Your task to perform on an android device: Turn off the flashlight Image 0: 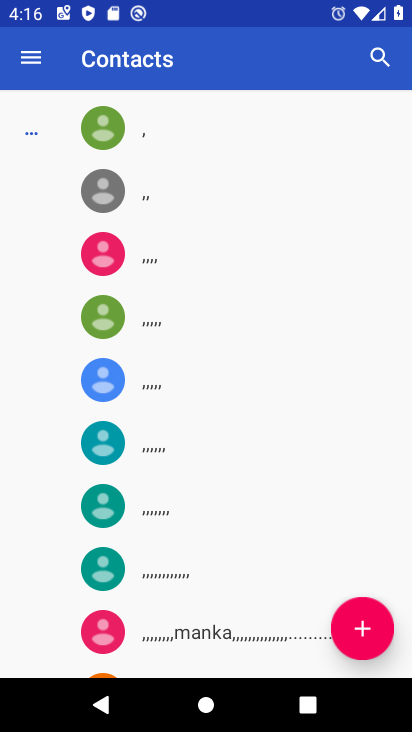
Step 0: press home button
Your task to perform on an android device: Turn off the flashlight Image 1: 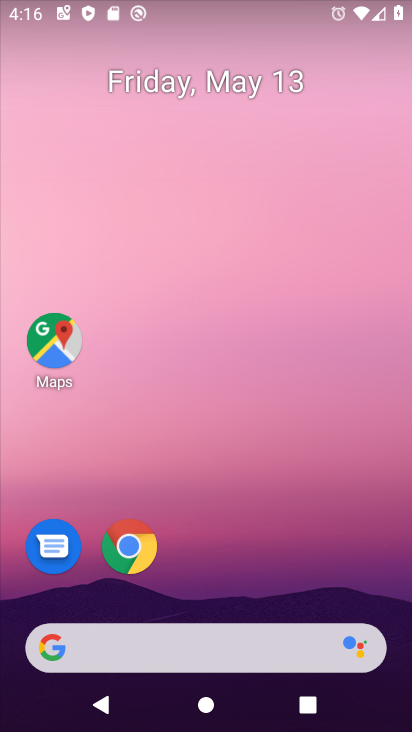
Step 1: drag from (230, 581) to (244, 124)
Your task to perform on an android device: Turn off the flashlight Image 2: 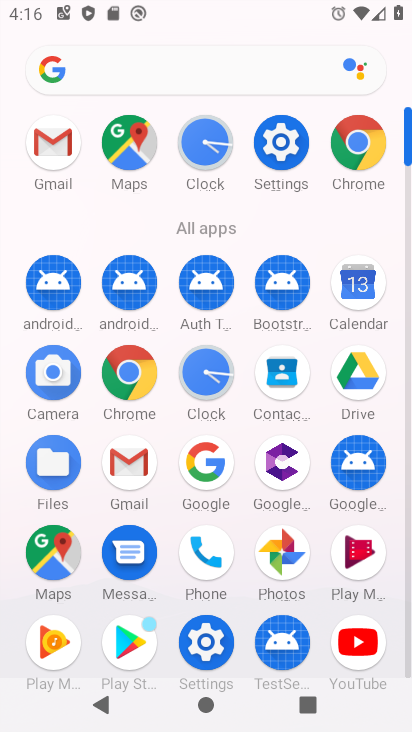
Step 2: click (278, 172)
Your task to perform on an android device: Turn off the flashlight Image 3: 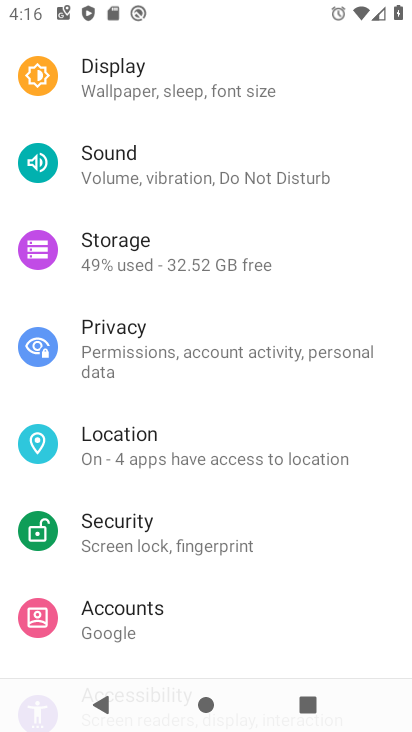
Step 3: drag from (246, 133) to (222, 567)
Your task to perform on an android device: Turn off the flashlight Image 4: 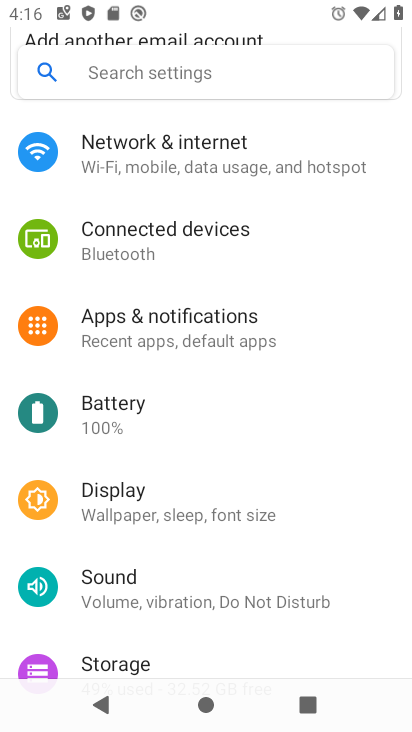
Step 4: click (193, 75)
Your task to perform on an android device: Turn off the flashlight Image 5: 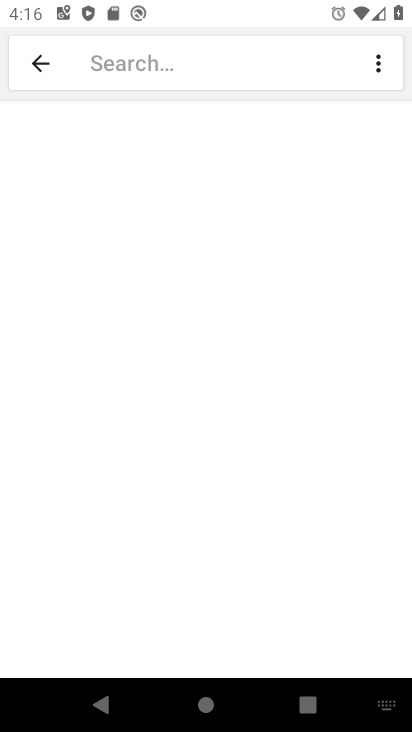
Step 5: type "flashlight"
Your task to perform on an android device: Turn off the flashlight Image 6: 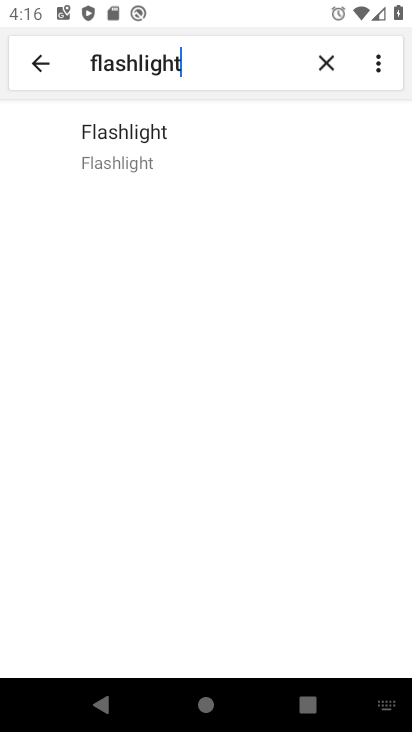
Step 6: click (135, 152)
Your task to perform on an android device: Turn off the flashlight Image 7: 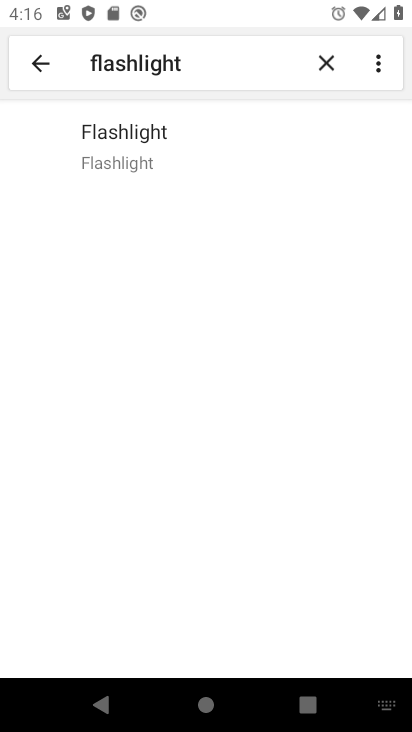
Step 7: click (136, 153)
Your task to perform on an android device: Turn off the flashlight Image 8: 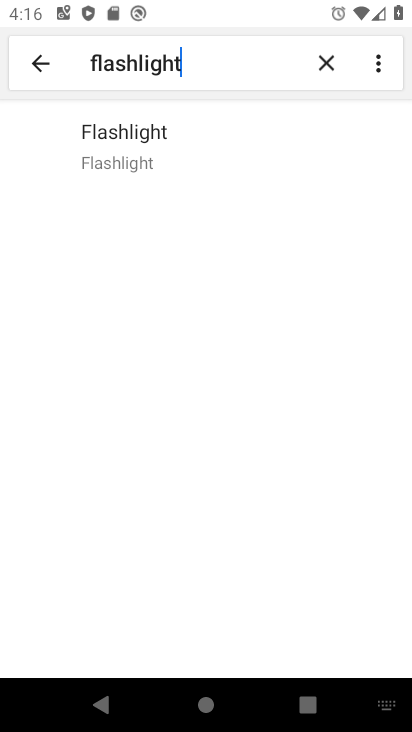
Step 8: task complete